Your task to perform on an android device: turn on the 12-hour format for clock Image 0: 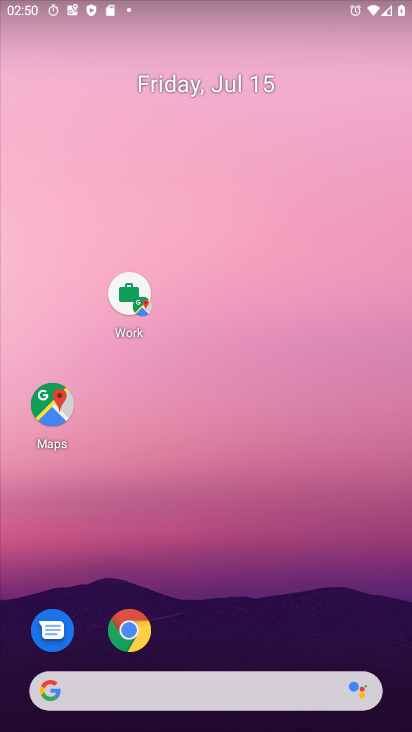
Step 0: drag from (233, 634) to (257, 165)
Your task to perform on an android device: turn on the 12-hour format for clock Image 1: 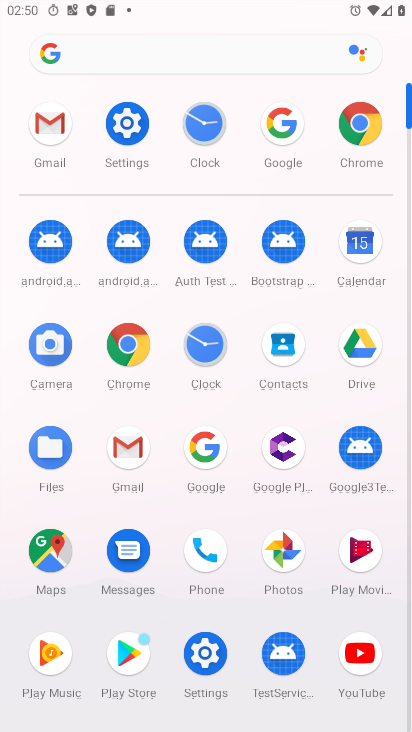
Step 1: click (200, 127)
Your task to perform on an android device: turn on the 12-hour format for clock Image 2: 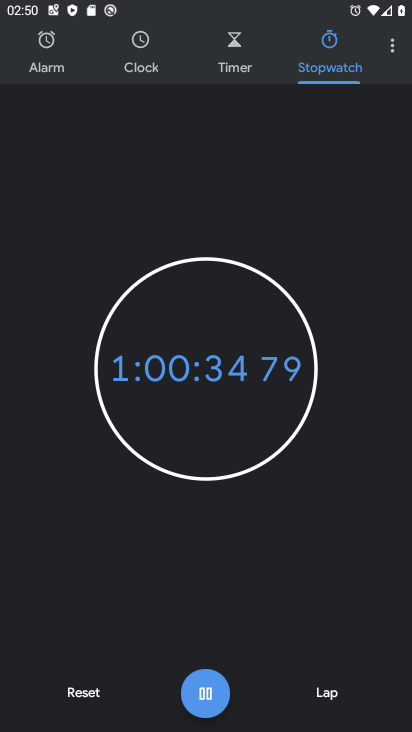
Step 2: click (390, 47)
Your task to perform on an android device: turn on the 12-hour format for clock Image 3: 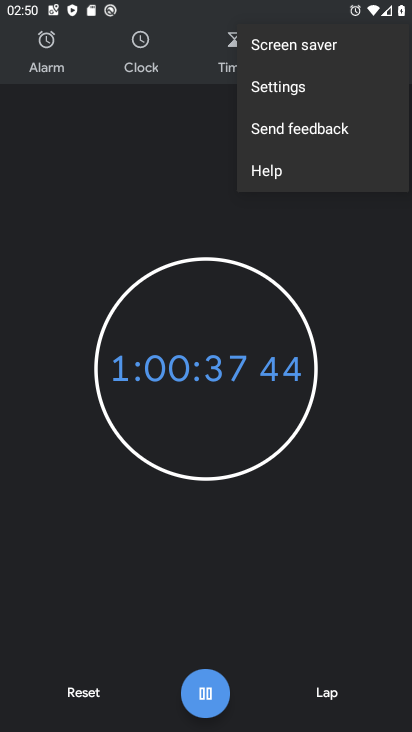
Step 3: click (278, 86)
Your task to perform on an android device: turn on the 12-hour format for clock Image 4: 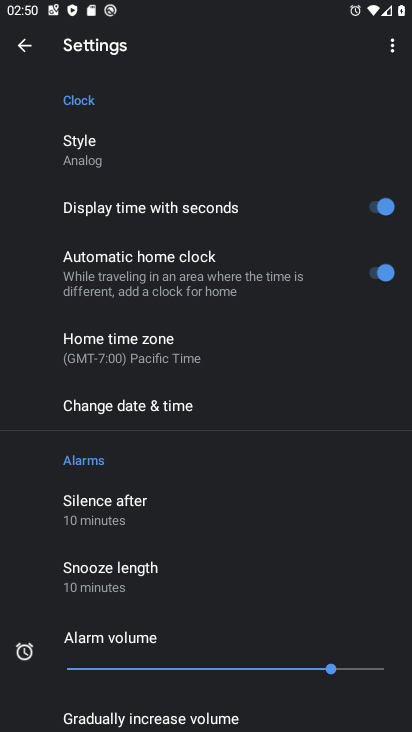
Step 4: click (146, 408)
Your task to perform on an android device: turn on the 12-hour format for clock Image 5: 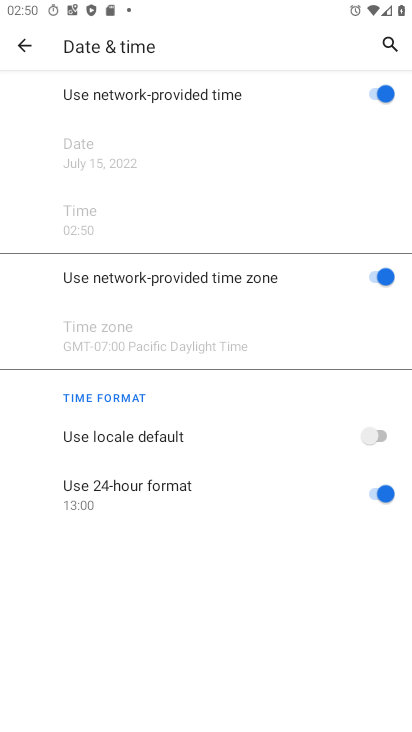
Step 5: click (369, 493)
Your task to perform on an android device: turn on the 12-hour format for clock Image 6: 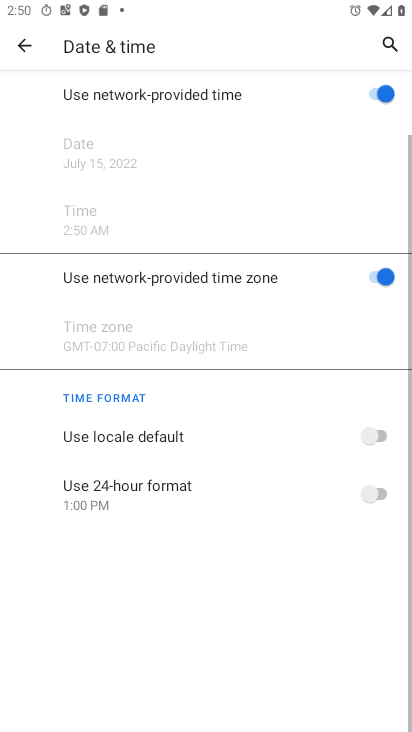
Step 6: click (384, 422)
Your task to perform on an android device: turn on the 12-hour format for clock Image 7: 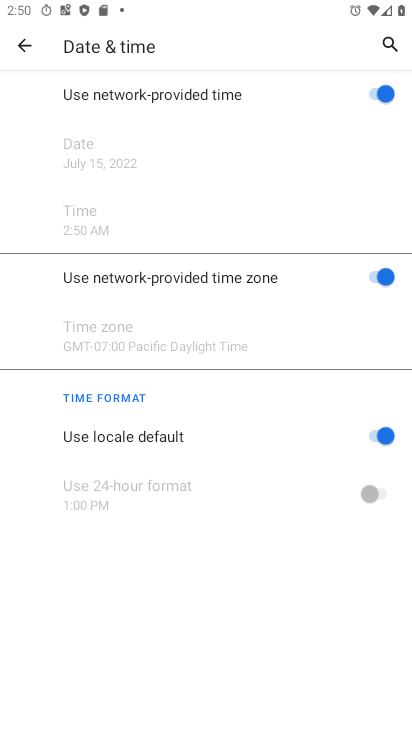
Step 7: task complete